Your task to perform on an android device: Open Chrome and go to settings Image 0: 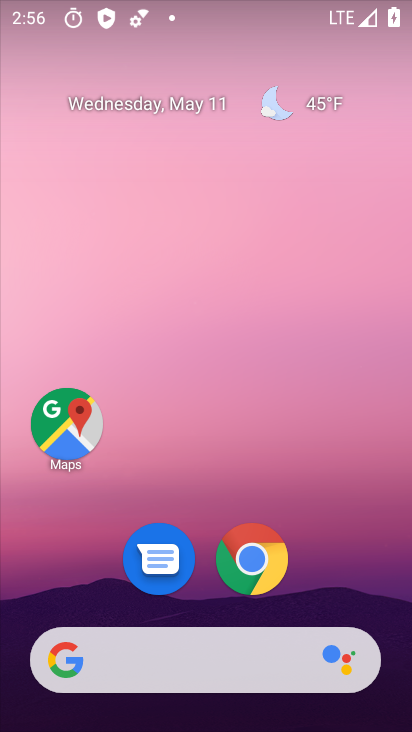
Step 0: click (257, 567)
Your task to perform on an android device: Open Chrome and go to settings Image 1: 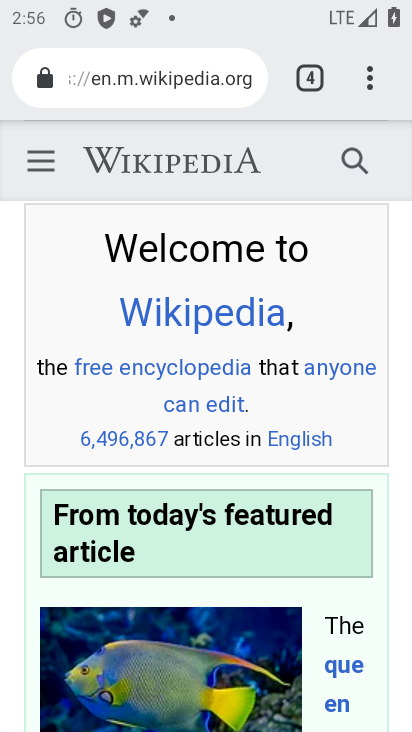
Step 1: click (368, 73)
Your task to perform on an android device: Open Chrome and go to settings Image 2: 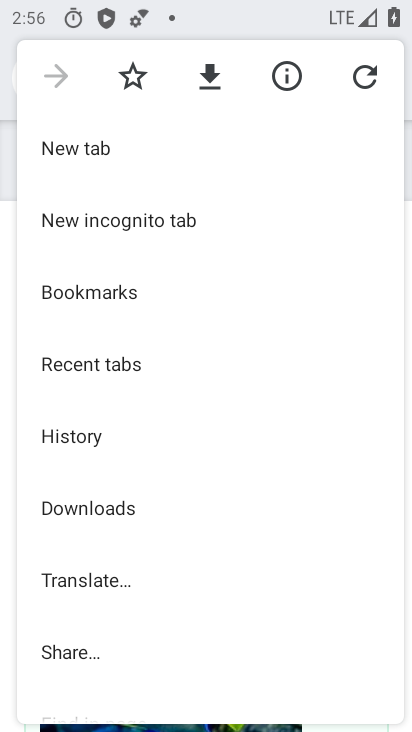
Step 2: drag from (190, 555) to (201, 157)
Your task to perform on an android device: Open Chrome and go to settings Image 3: 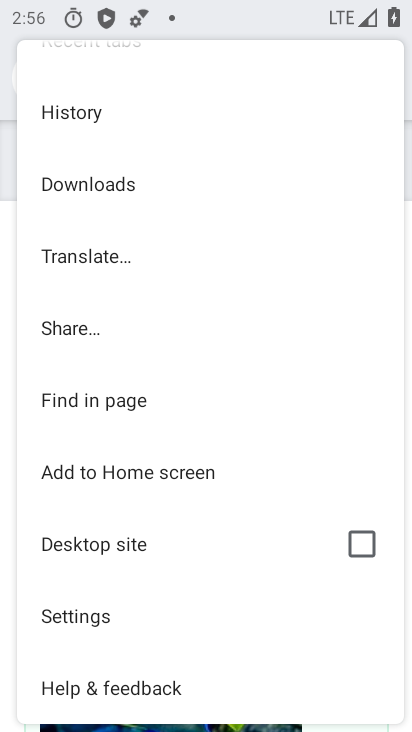
Step 3: click (97, 611)
Your task to perform on an android device: Open Chrome and go to settings Image 4: 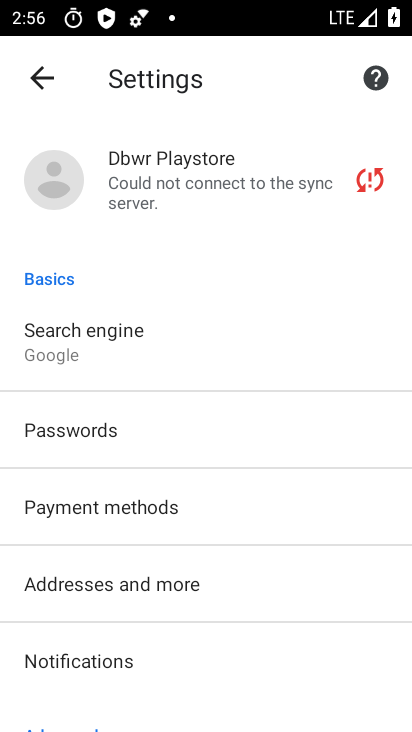
Step 4: task complete